Your task to perform on an android device: turn on priority inbox in the gmail app Image 0: 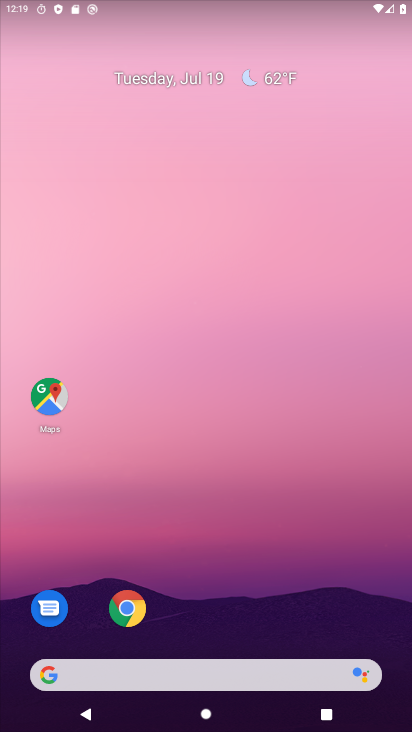
Step 0: drag from (205, 639) to (200, 21)
Your task to perform on an android device: turn on priority inbox in the gmail app Image 1: 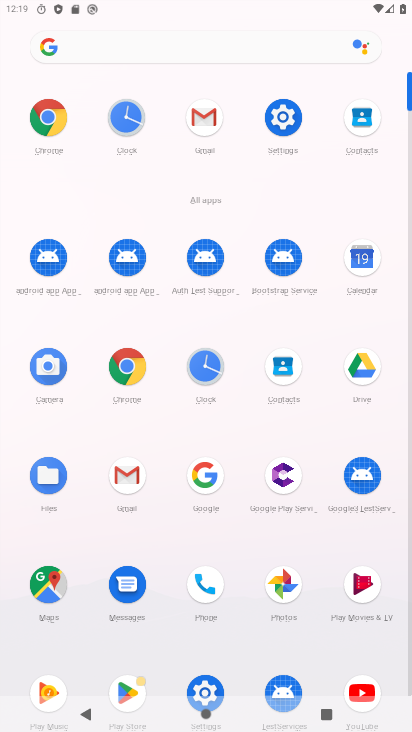
Step 1: click (124, 469)
Your task to perform on an android device: turn on priority inbox in the gmail app Image 2: 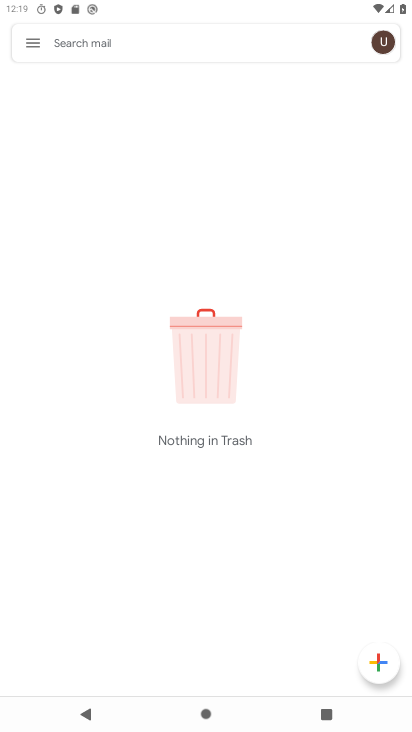
Step 2: click (26, 35)
Your task to perform on an android device: turn on priority inbox in the gmail app Image 3: 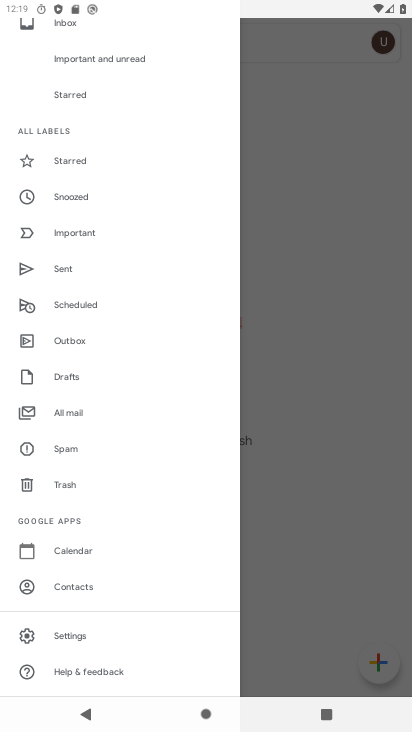
Step 3: click (86, 634)
Your task to perform on an android device: turn on priority inbox in the gmail app Image 4: 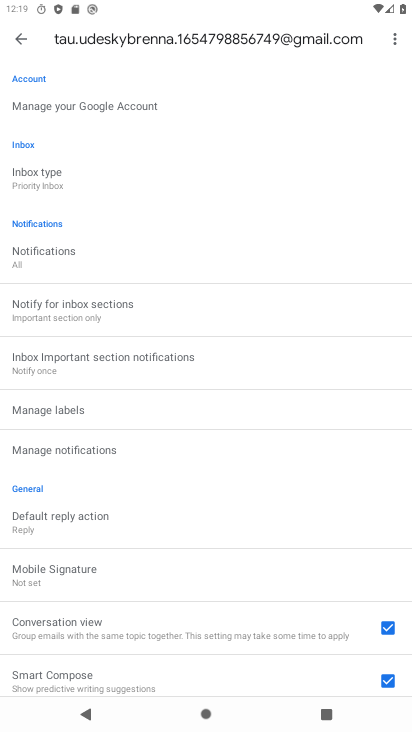
Step 4: click (78, 170)
Your task to perform on an android device: turn on priority inbox in the gmail app Image 5: 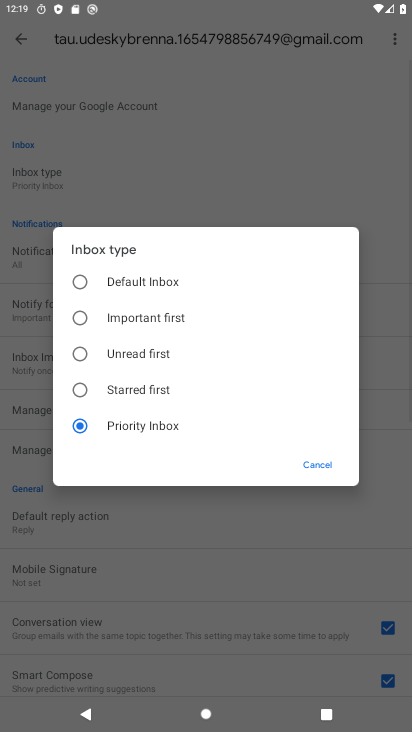
Step 5: click (94, 424)
Your task to perform on an android device: turn on priority inbox in the gmail app Image 6: 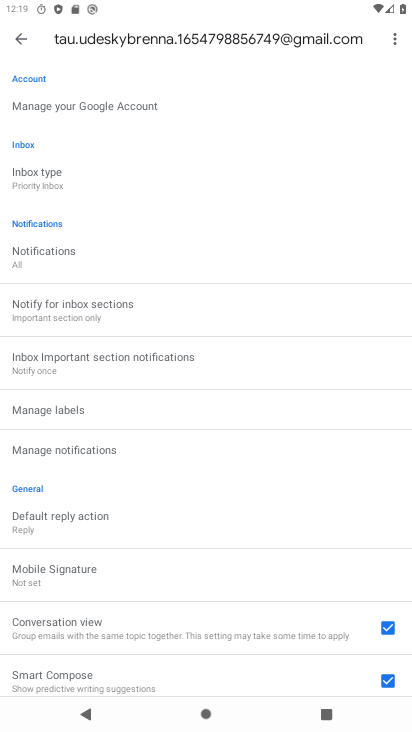
Step 6: task complete